Your task to perform on an android device: What's the weather? Image 0: 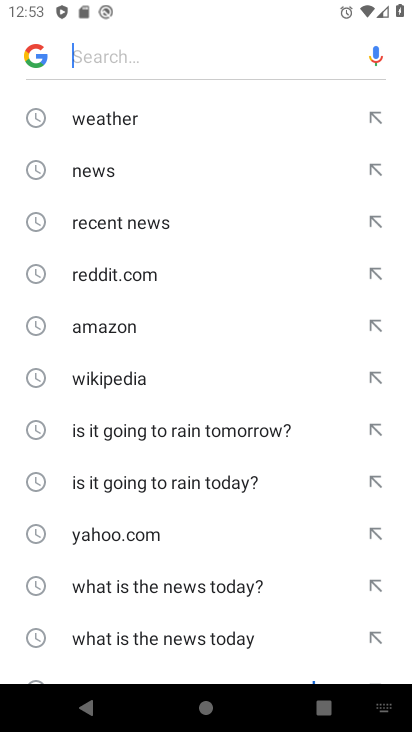
Step 0: click (141, 116)
Your task to perform on an android device: What's the weather? Image 1: 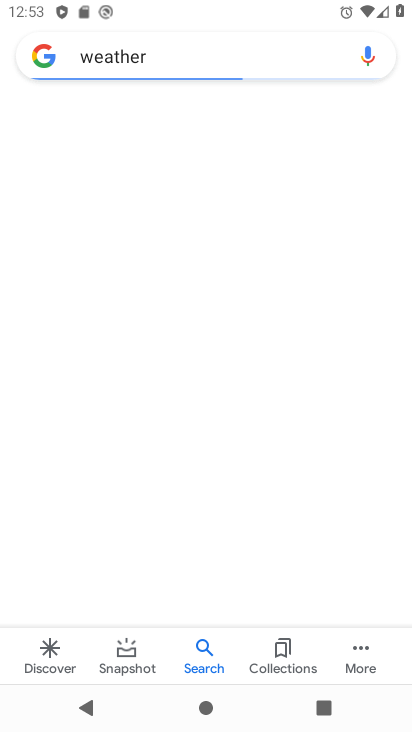
Step 1: task complete